Your task to perform on an android device: Open the web browser Image 0: 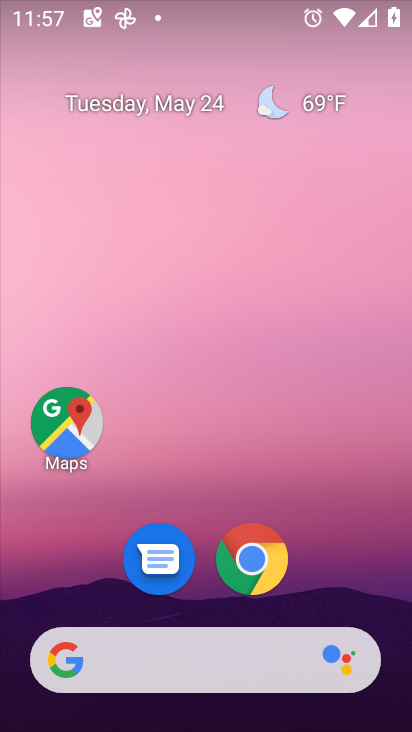
Step 0: drag from (401, 651) to (362, 300)
Your task to perform on an android device: Open the web browser Image 1: 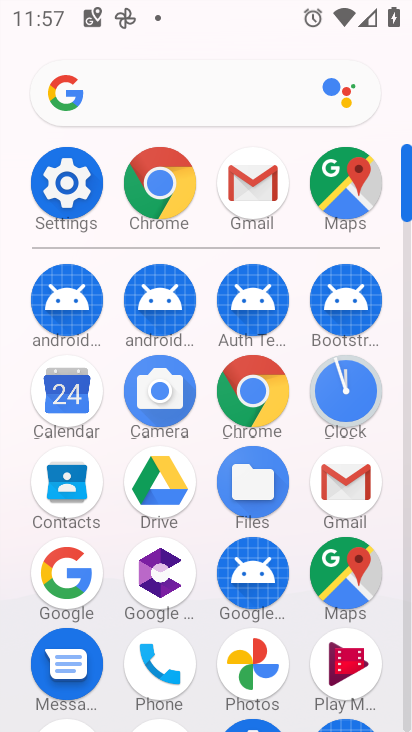
Step 1: click (254, 384)
Your task to perform on an android device: Open the web browser Image 2: 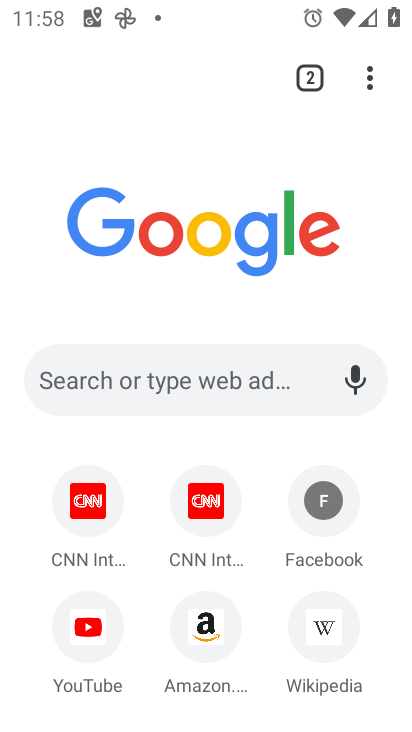
Step 2: task complete